Your task to perform on an android device: turn on bluetooth scan Image 0: 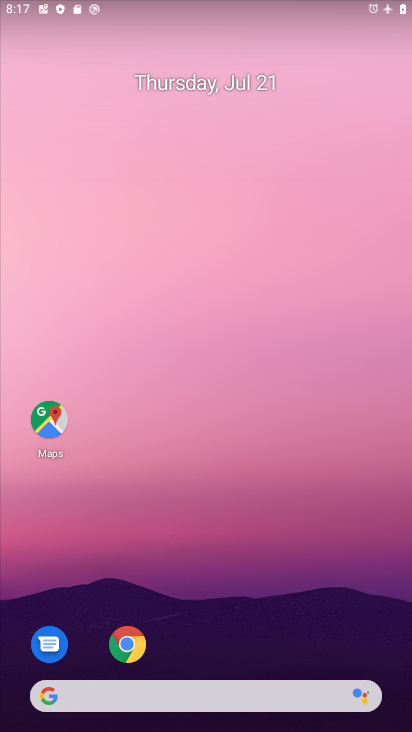
Step 0: drag from (169, 552) to (169, 239)
Your task to perform on an android device: turn on bluetooth scan Image 1: 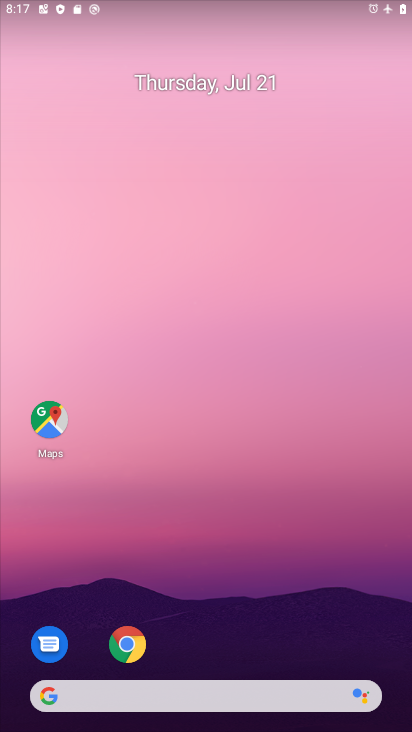
Step 1: drag from (277, 651) to (223, 70)
Your task to perform on an android device: turn on bluetooth scan Image 2: 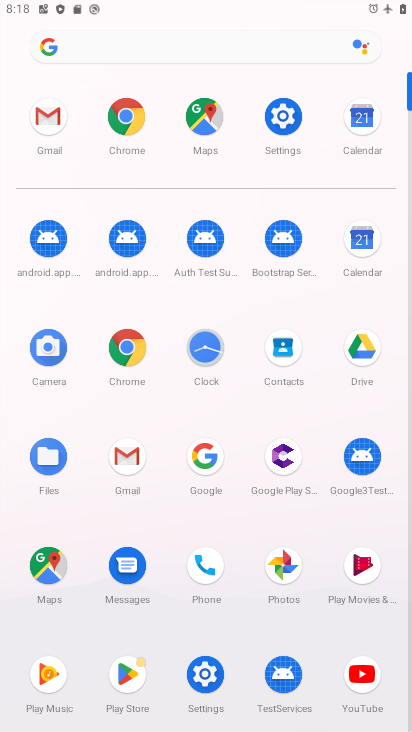
Step 2: click (288, 121)
Your task to perform on an android device: turn on bluetooth scan Image 3: 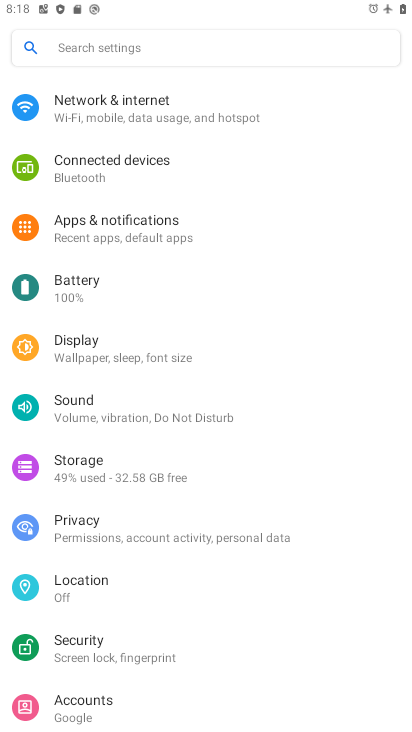
Step 3: click (110, 44)
Your task to perform on an android device: turn on bluetooth scan Image 4: 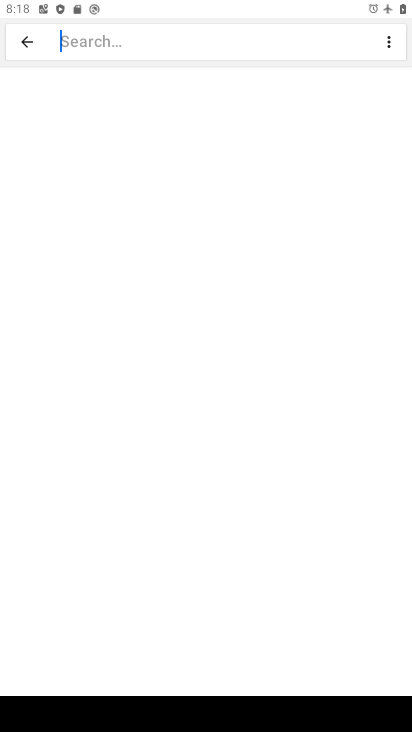
Step 4: drag from (201, 80) to (206, 255)
Your task to perform on an android device: turn on bluetooth scan Image 5: 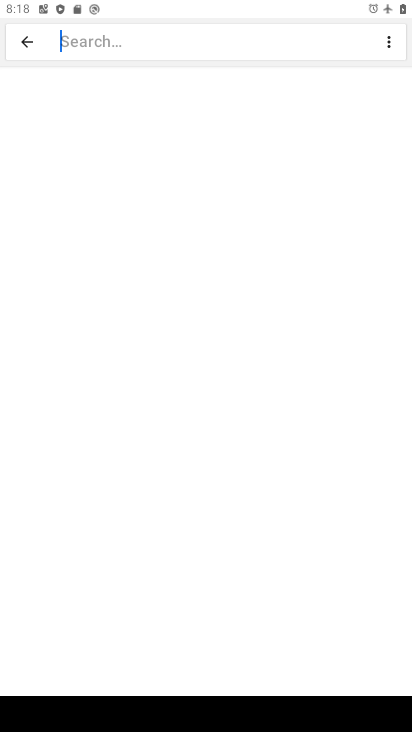
Step 5: click (135, 31)
Your task to perform on an android device: turn on bluetooth scan Image 6: 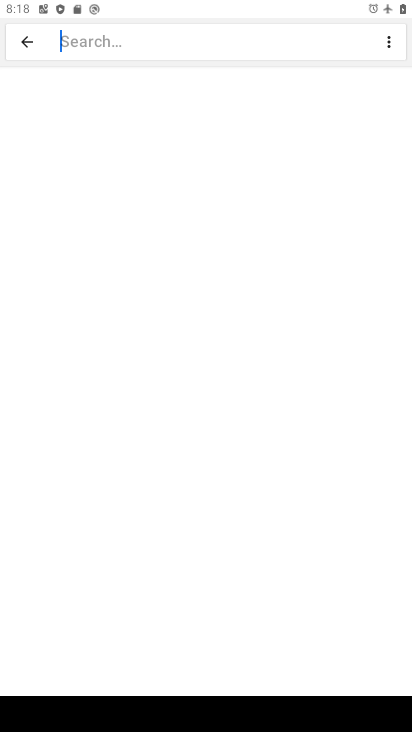
Step 6: type "bluetooth scan "
Your task to perform on an android device: turn on bluetooth scan Image 7: 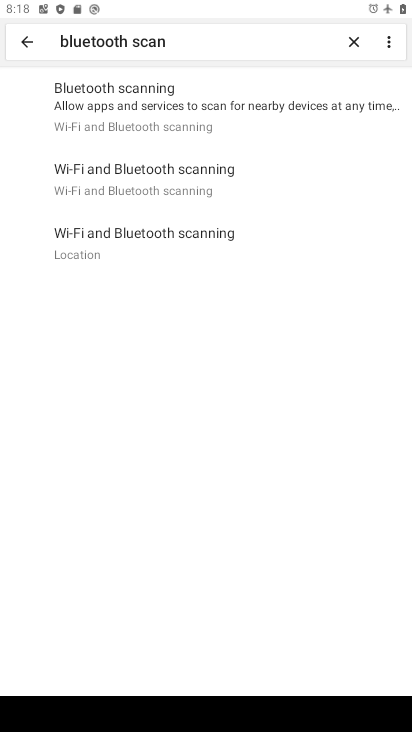
Step 7: click (170, 105)
Your task to perform on an android device: turn on bluetooth scan Image 8: 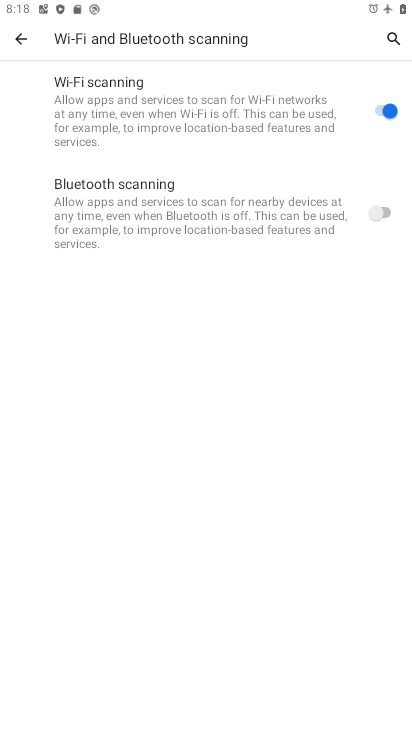
Step 8: task complete